Your task to perform on an android device: Go to Google maps Image 0: 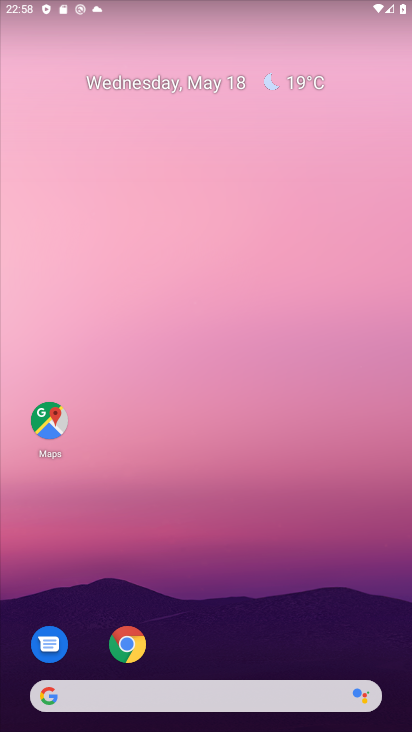
Step 0: drag from (267, 590) to (315, 221)
Your task to perform on an android device: Go to Google maps Image 1: 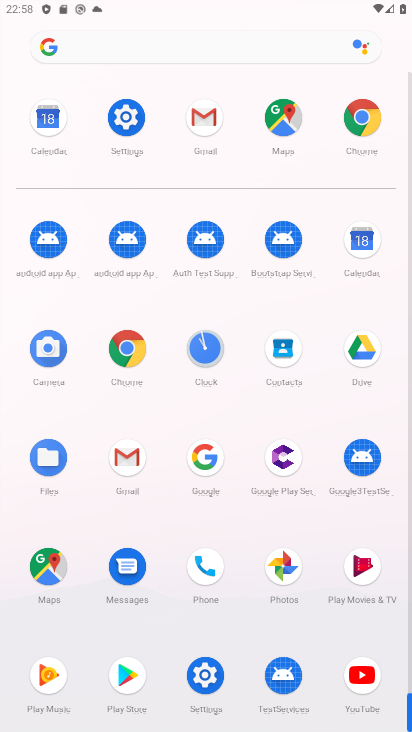
Step 1: click (288, 109)
Your task to perform on an android device: Go to Google maps Image 2: 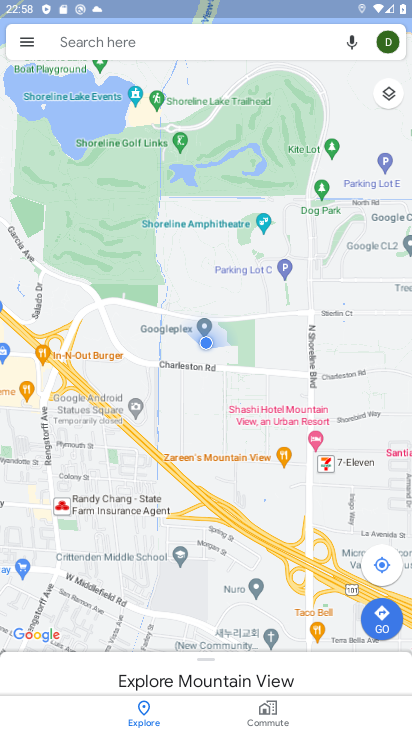
Step 2: task complete